Your task to perform on an android device: Open calendar and show me the first week of next month Image 0: 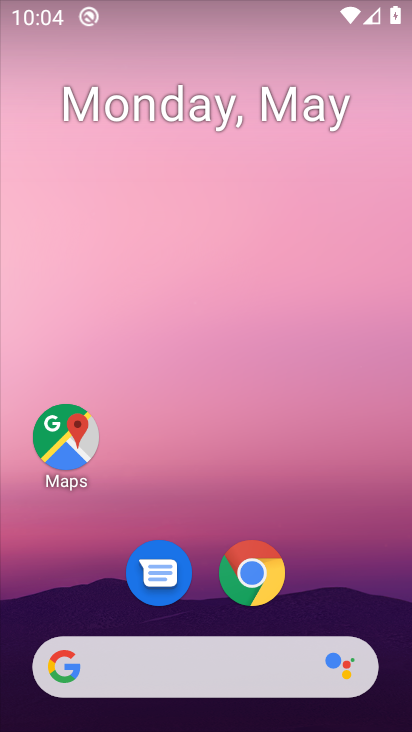
Step 0: drag from (211, 604) to (226, 73)
Your task to perform on an android device: Open calendar and show me the first week of next month Image 1: 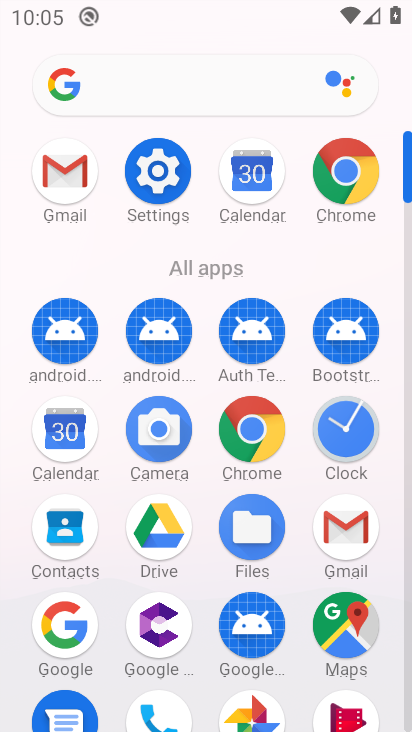
Step 1: click (50, 442)
Your task to perform on an android device: Open calendar and show me the first week of next month Image 2: 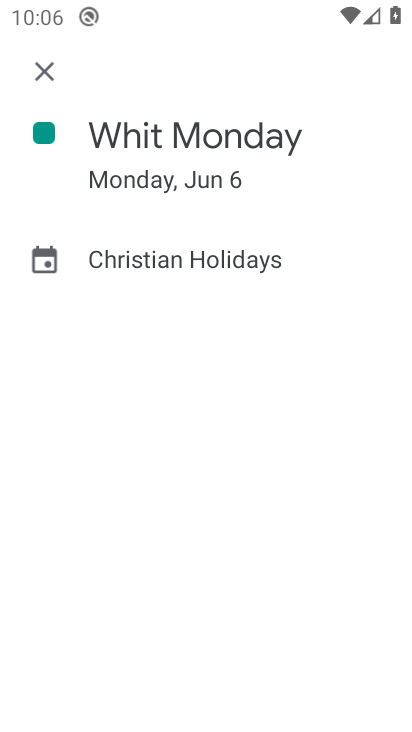
Step 2: click (52, 66)
Your task to perform on an android device: Open calendar and show me the first week of next month Image 3: 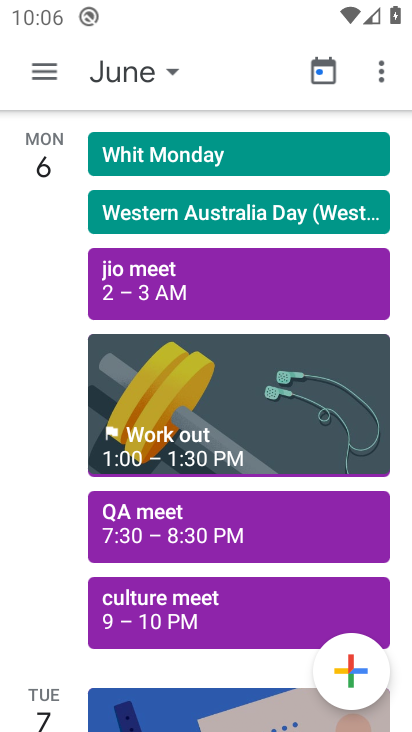
Step 3: click (173, 65)
Your task to perform on an android device: Open calendar and show me the first week of next month Image 4: 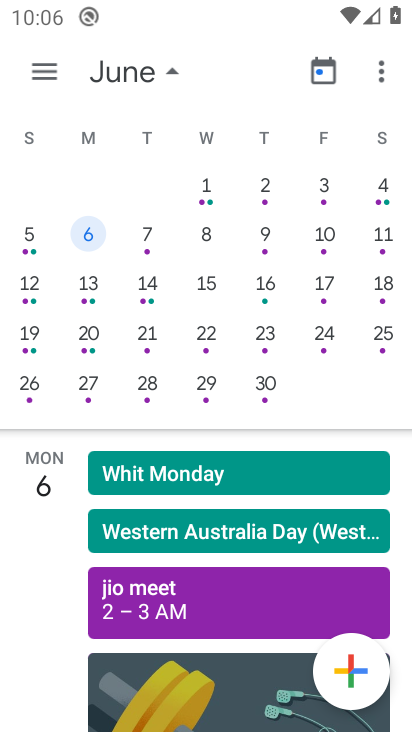
Step 4: click (96, 287)
Your task to perform on an android device: Open calendar and show me the first week of next month Image 5: 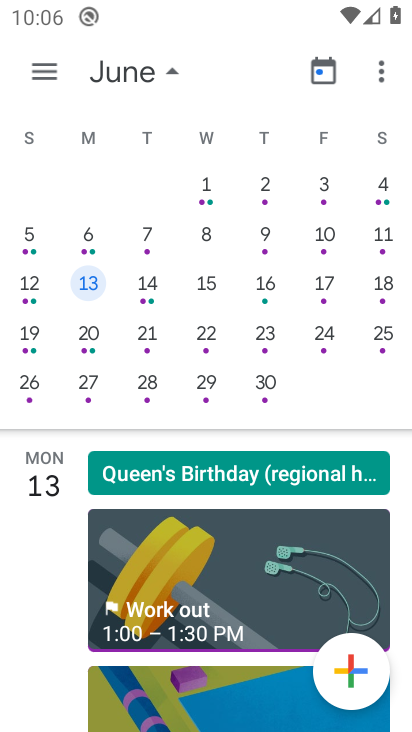
Step 5: task complete